Your task to perform on an android device: toggle location history Image 0: 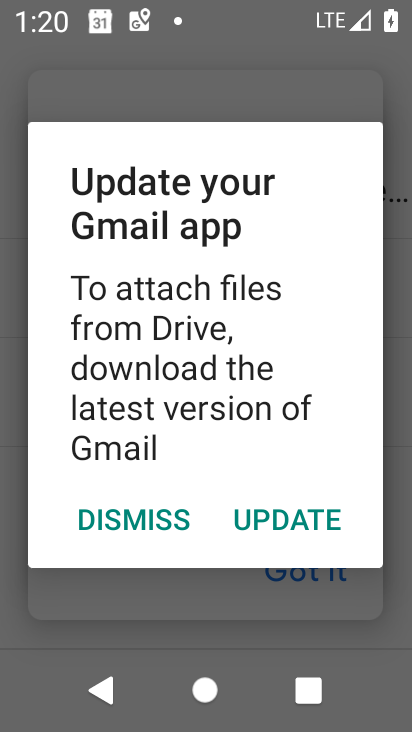
Step 0: press home button
Your task to perform on an android device: toggle location history Image 1: 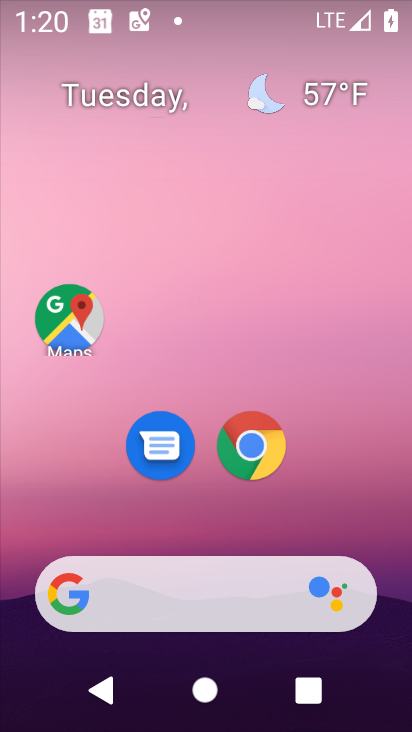
Step 1: drag from (380, 562) to (365, 188)
Your task to perform on an android device: toggle location history Image 2: 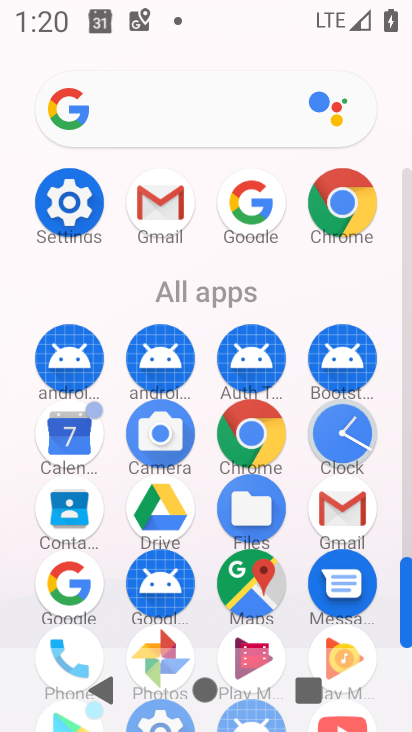
Step 2: click (77, 205)
Your task to perform on an android device: toggle location history Image 3: 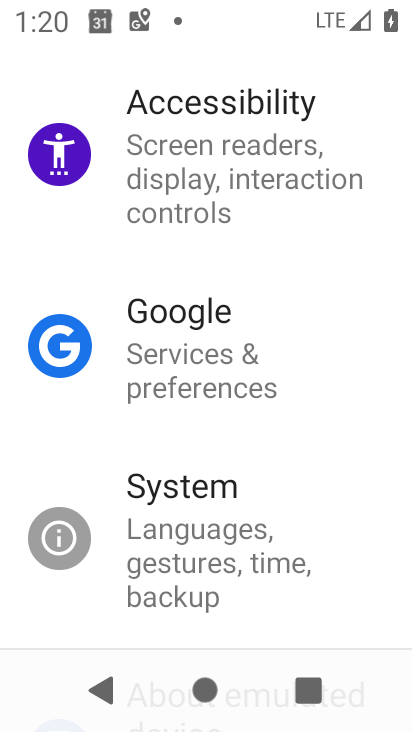
Step 3: drag from (341, 248) to (314, 351)
Your task to perform on an android device: toggle location history Image 4: 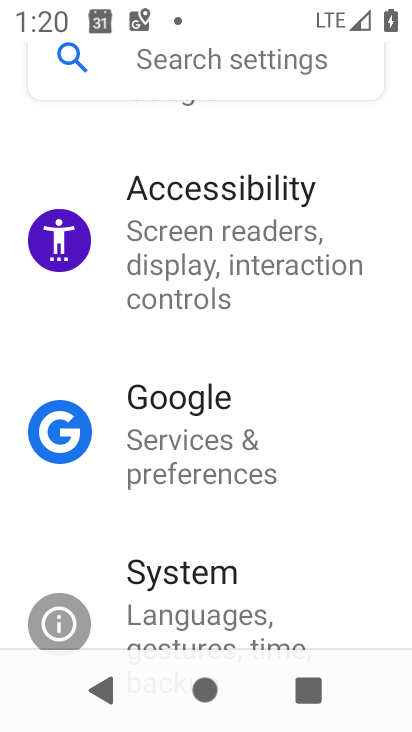
Step 4: drag from (339, 157) to (344, 316)
Your task to perform on an android device: toggle location history Image 5: 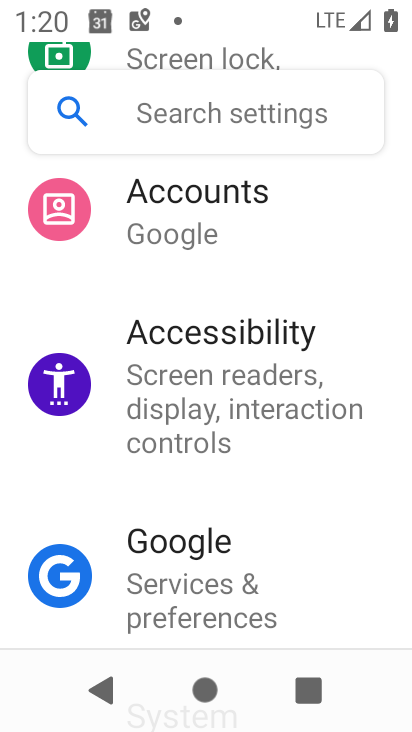
Step 5: drag from (340, 232) to (344, 373)
Your task to perform on an android device: toggle location history Image 6: 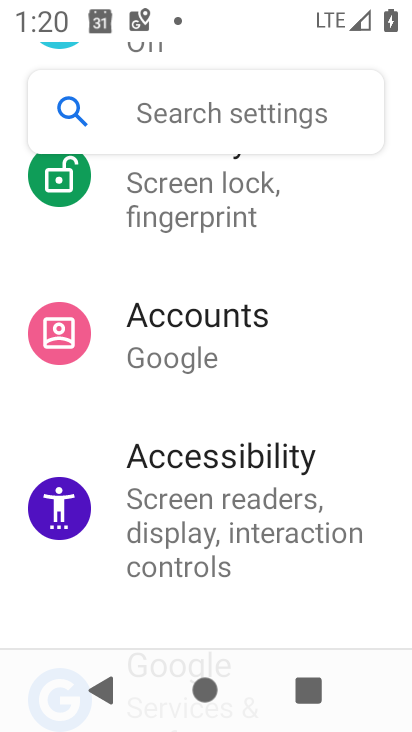
Step 6: drag from (330, 228) to (339, 363)
Your task to perform on an android device: toggle location history Image 7: 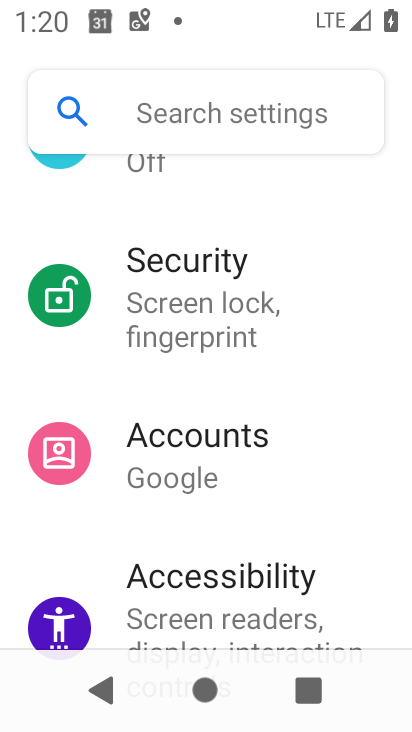
Step 7: drag from (317, 224) to (339, 366)
Your task to perform on an android device: toggle location history Image 8: 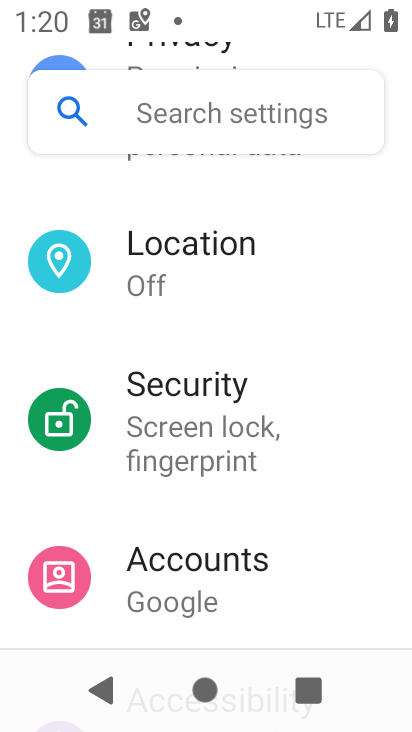
Step 8: drag from (328, 205) to (338, 365)
Your task to perform on an android device: toggle location history Image 9: 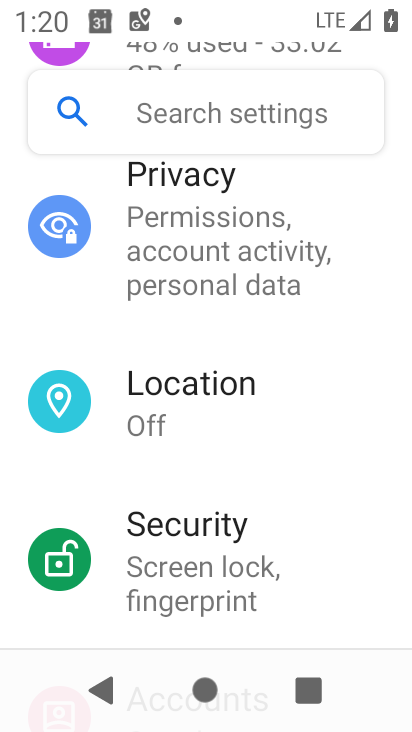
Step 9: click (238, 388)
Your task to perform on an android device: toggle location history Image 10: 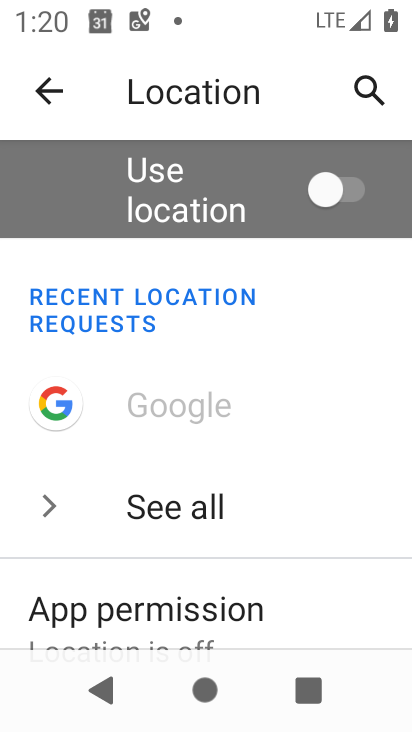
Step 10: drag from (346, 534) to (365, 430)
Your task to perform on an android device: toggle location history Image 11: 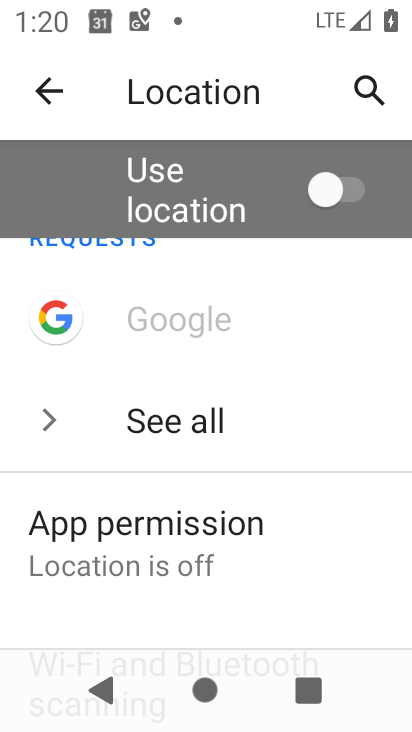
Step 11: drag from (347, 558) to (347, 403)
Your task to perform on an android device: toggle location history Image 12: 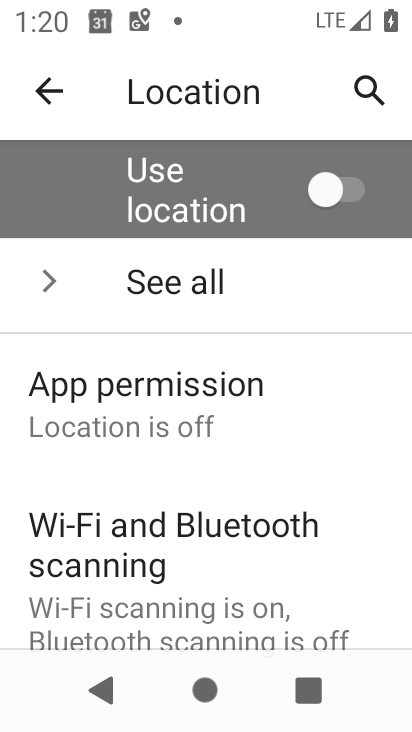
Step 12: drag from (352, 557) to (357, 401)
Your task to perform on an android device: toggle location history Image 13: 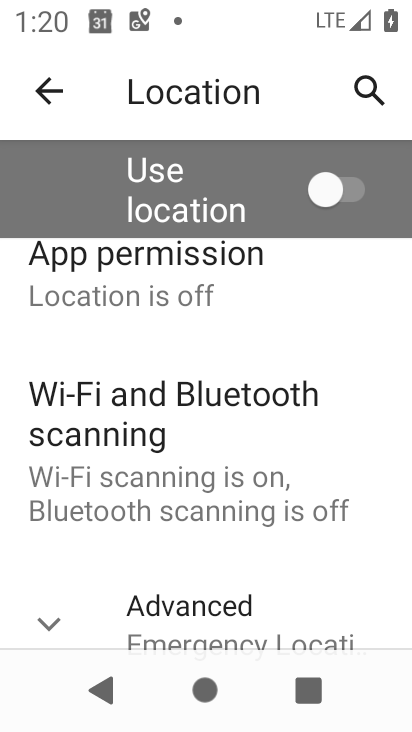
Step 13: drag from (361, 557) to (367, 390)
Your task to perform on an android device: toggle location history Image 14: 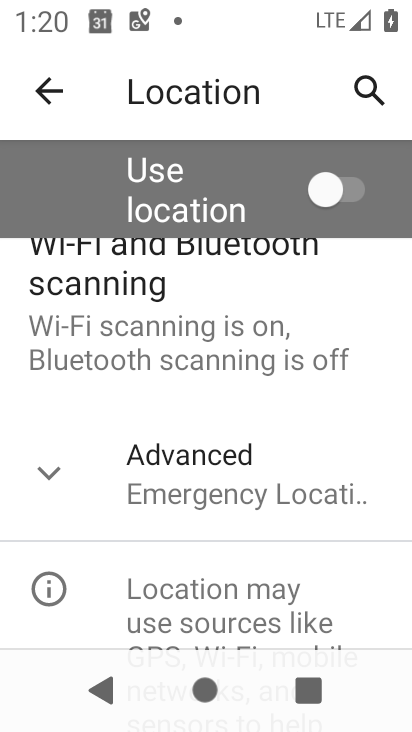
Step 14: click (293, 471)
Your task to perform on an android device: toggle location history Image 15: 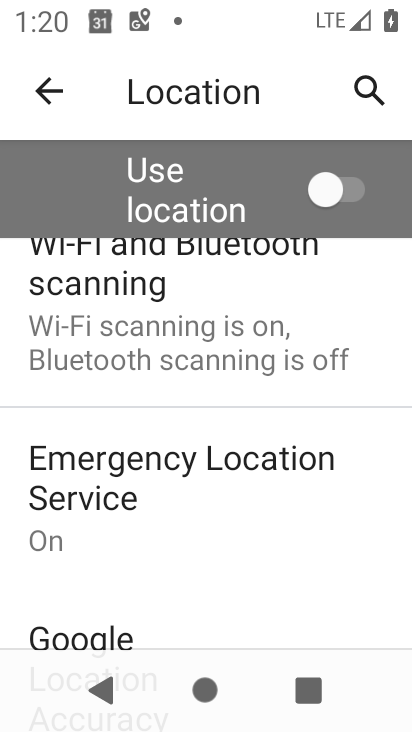
Step 15: drag from (351, 534) to (360, 428)
Your task to perform on an android device: toggle location history Image 16: 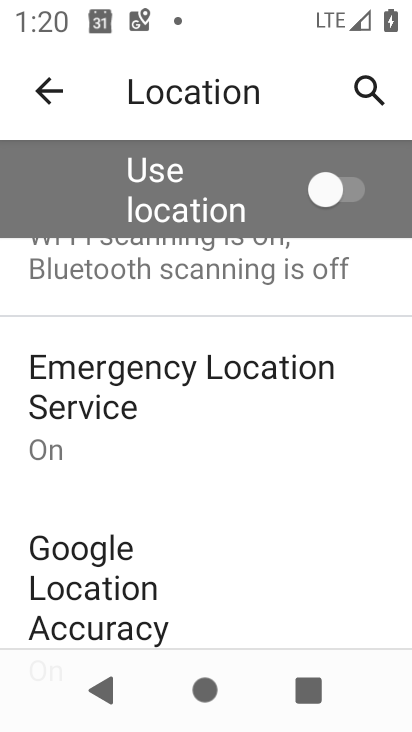
Step 16: drag from (365, 526) to (363, 415)
Your task to perform on an android device: toggle location history Image 17: 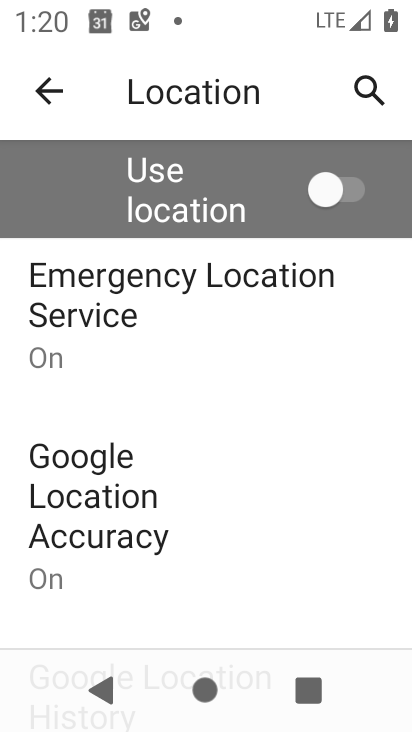
Step 17: drag from (325, 553) to (330, 429)
Your task to perform on an android device: toggle location history Image 18: 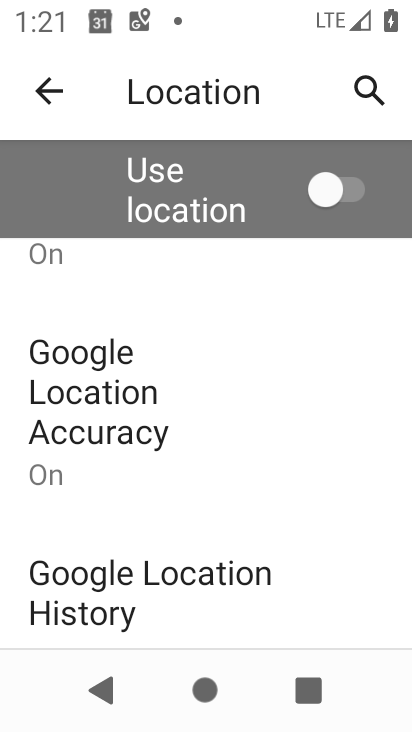
Step 18: drag from (319, 564) to (320, 421)
Your task to perform on an android device: toggle location history Image 19: 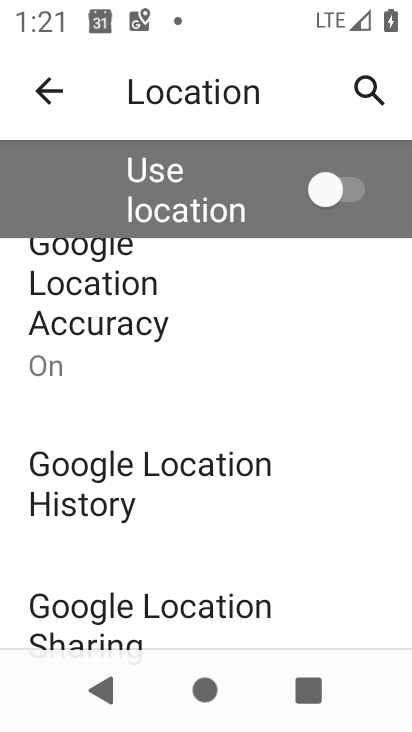
Step 19: click (178, 486)
Your task to perform on an android device: toggle location history Image 20: 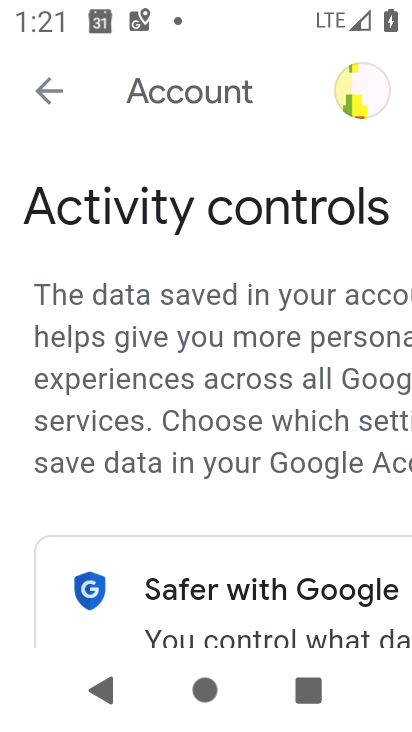
Step 20: drag from (278, 523) to (287, 291)
Your task to perform on an android device: toggle location history Image 21: 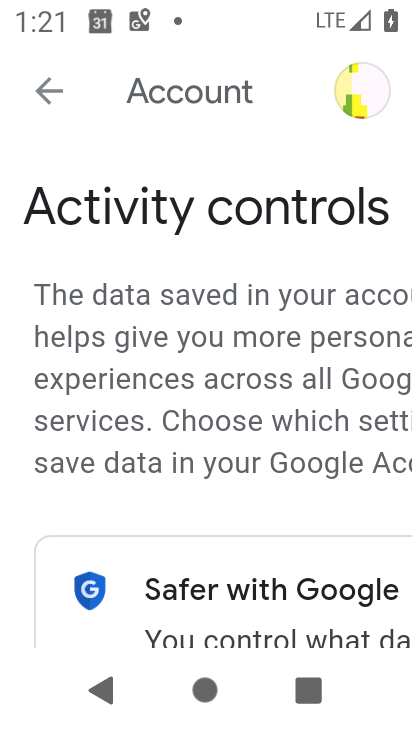
Step 21: drag from (261, 561) to (252, 331)
Your task to perform on an android device: toggle location history Image 22: 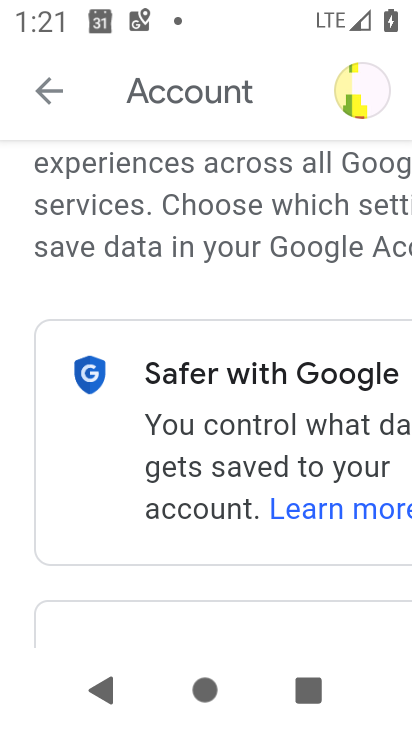
Step 22: drag from (275, 589) to (253, 291)
Your task to perform on an android device: toggle location history Image 23: 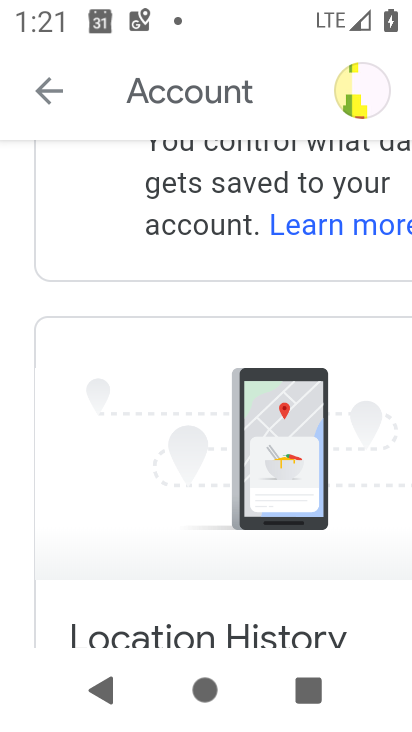
Step 23: drag from (254, 585) to (256, 293)
Your task to perform on an android device: toggle location history Image 24: 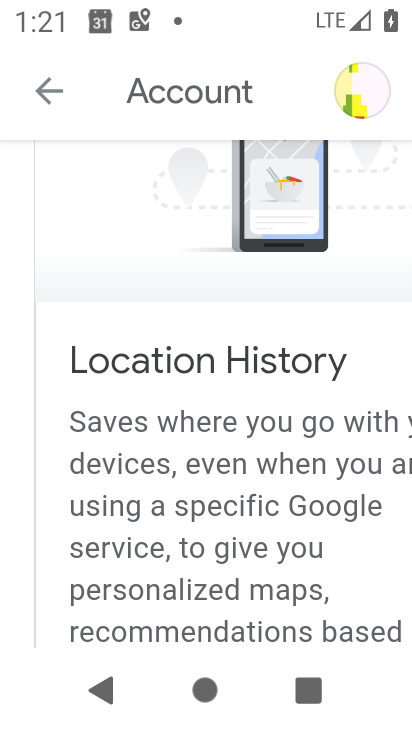
Step 24: drag from (293, 586) to (287, 387)
Your task to perform on an android device: toggle location history Image 25: 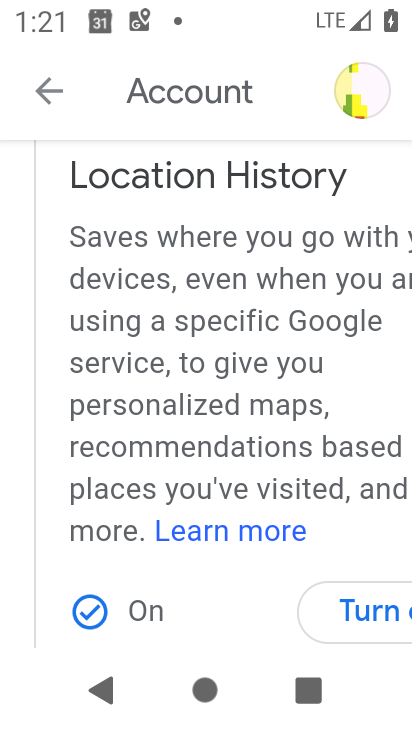
Step 25: click (374, 614)
Your task to perform on an android device: toggle location history Image 26: 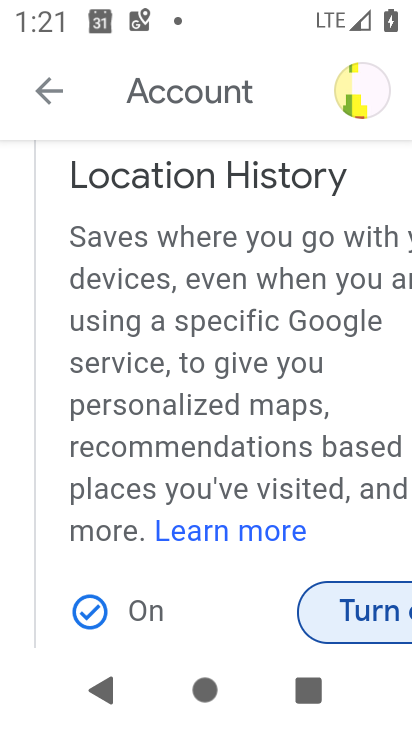
Step 26: click (360, 605)
Your task to perform on an android device: toggle location history Image 27: 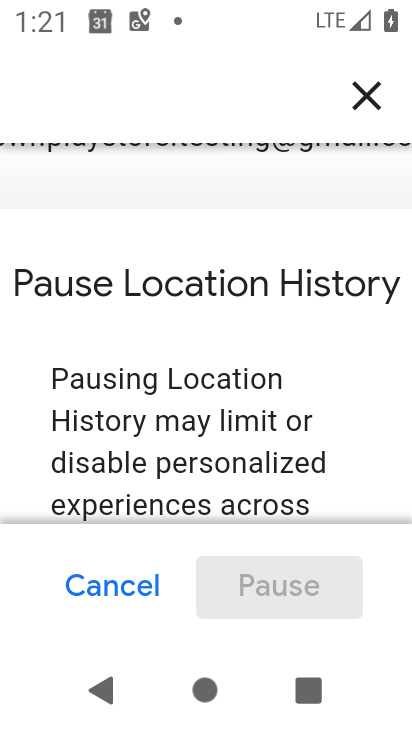
Step 27: drag from (304, 455) to (278, 226)
Your task to perform on an android device: toggle location history Image 28: 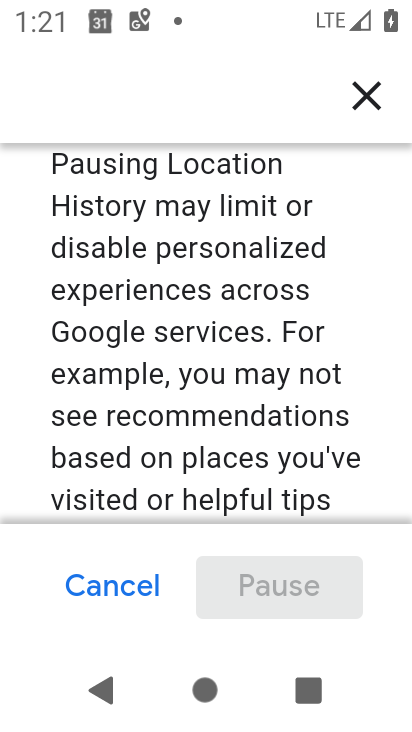
Step 28: drag from (277, 389) to (287, 226)
Your task to perform on an android device: toggle location history Image 29: 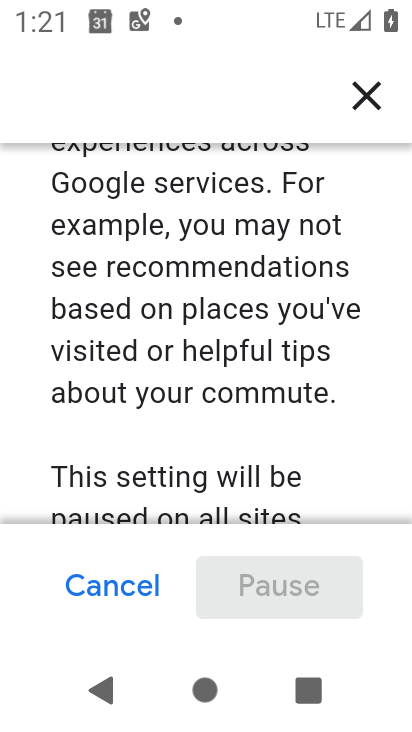
Step 29: drag from (265, 430) to (261, 284)
Your task to perform on an android device: toggle location history Image 30: 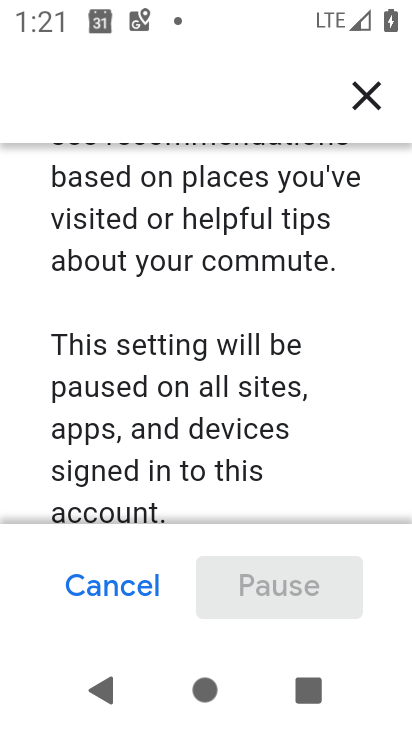
Step 30: drag from (273, 449) to (282, 289)
Your task to perform on an android device: toggle location history Image 31: 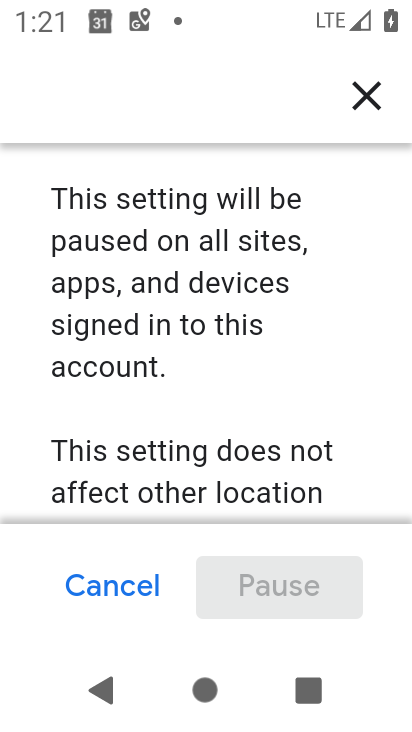
Step 31: drag from (380, 443) to (380, 284)
Your task to perform on an android device: toggle location history Image 32: 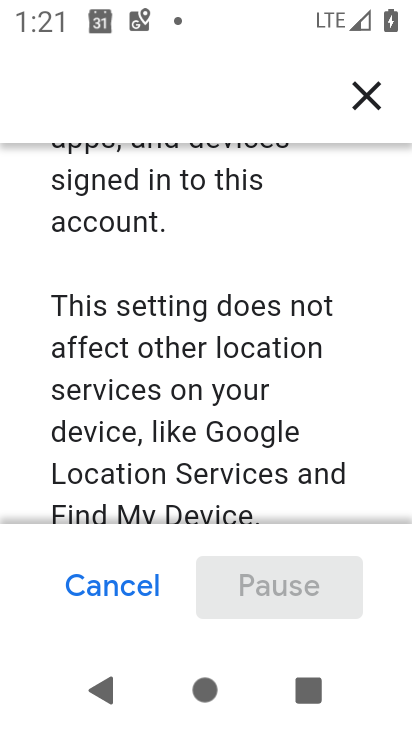
Step 32: drag from (320, 472) to (325, 327)
Your task to perform on an android device: toggle location history Image 33: 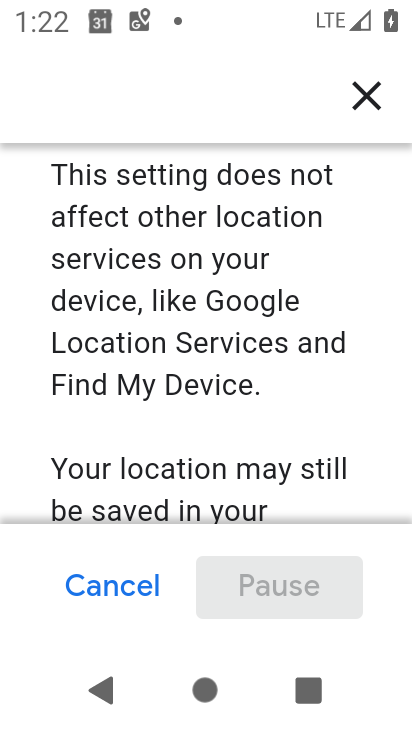
Step 33: drag from (333, 471) to (357, 238)
Your task to perform on an android device: toggle location history Image 34: 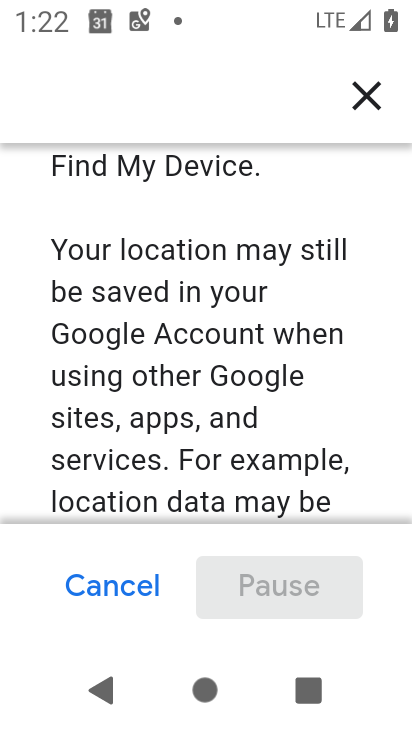
Step 34: drag from (332, 441) to (314, 270)
Your task to perform on an android device: toggle location history Image 35: 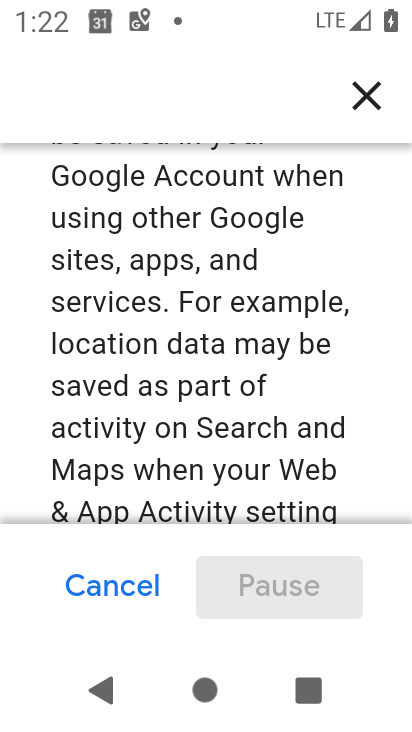
Step 35: drag from (287, 444) to (266, 285)
Your task to perform on an android device: toggle location history Image 36: 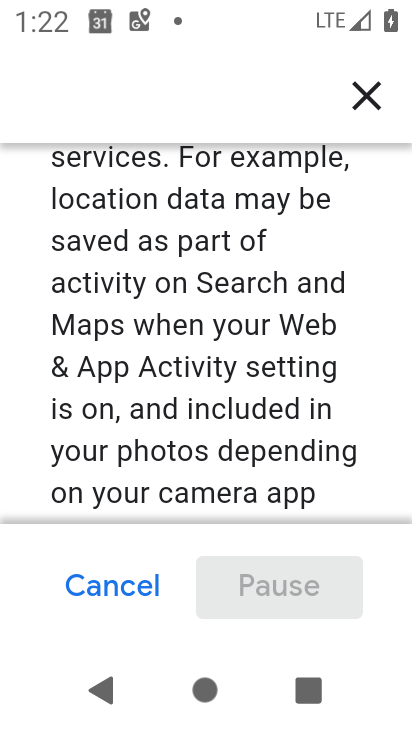
Step 36: drag from (286, 448) to (285, 264)
Your task to perform on an android device: toggle location history Image 37: 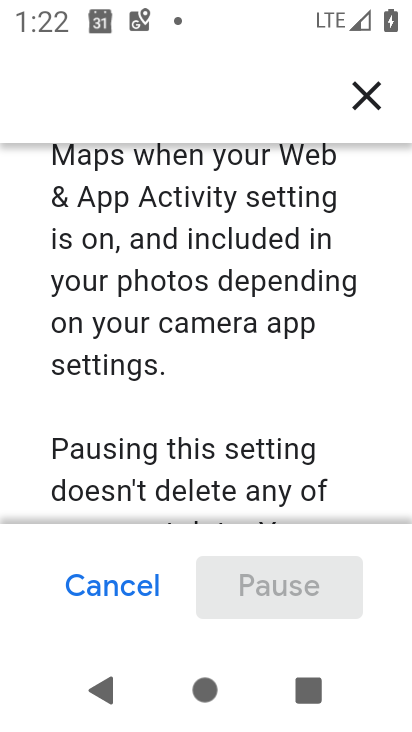
Step 37: drag from (273, 465) to (252, 277)
Your task to perform on an android device: toggle location history Image 38: 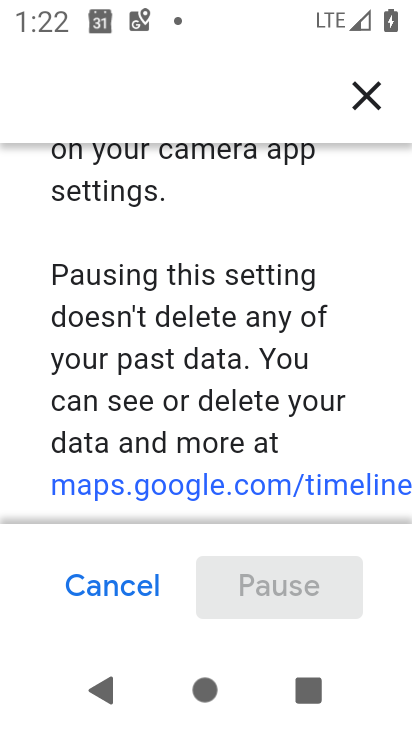
Step 38: drag from (337, 410) to (351, 257)
Your task to perform on an android device: toggle location history Image 39: 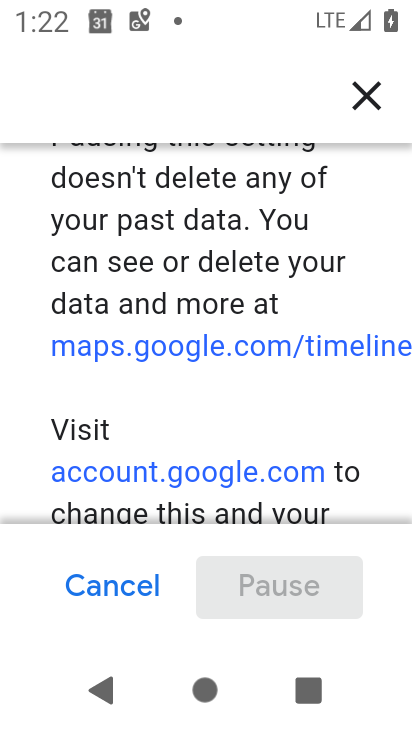
Step 39: drag from (281, 460) to (244, 234)
Your task to perform on an android device: toggle location history Image 40: 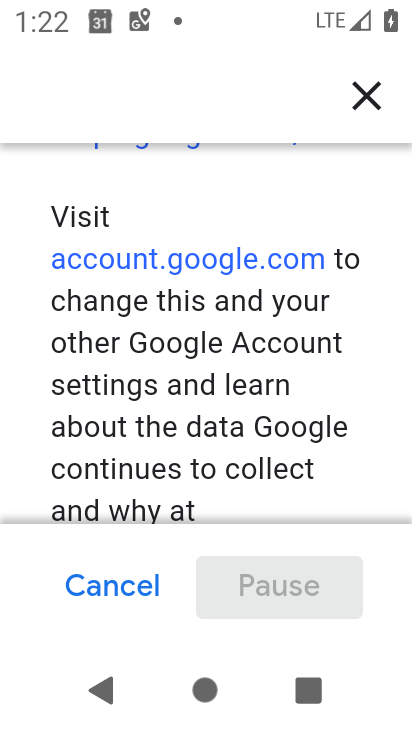
Step 40: drag from (261, 395) to (262, 213)
Your task to perform on an android device: toggle location history Image 41: 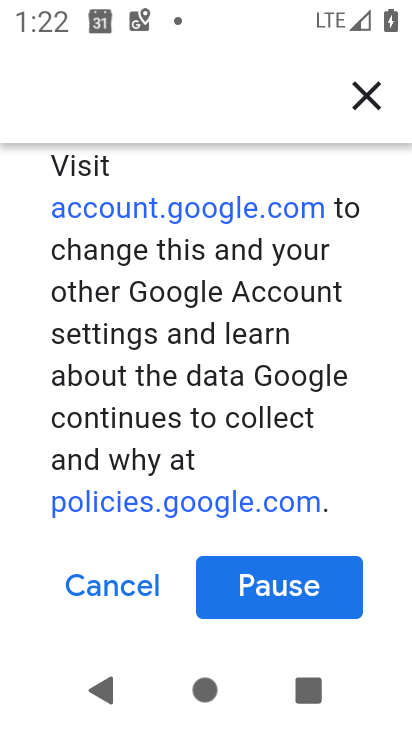
Step 41: click (267, 584)
Your task to perform on an android device: toggle location history Image 42: 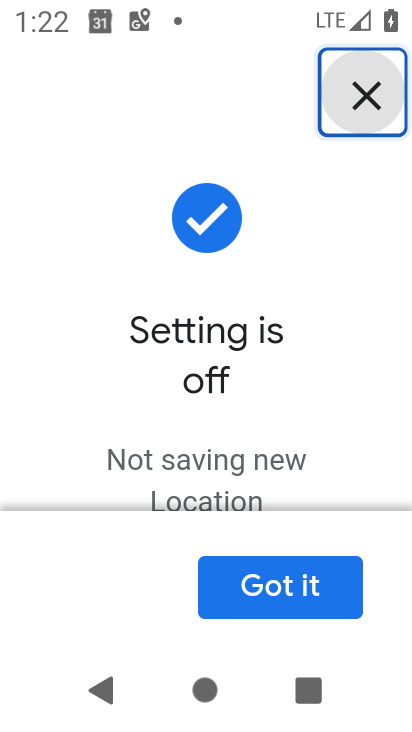
Step 42: task complete